Your task to perform on an android device: open a new tab in the chrome app Image 0: 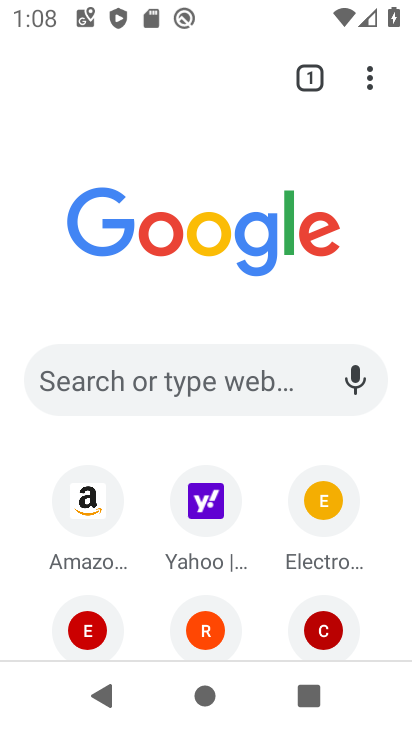
Step 0: drag from (377, 95) to (333, 149)
Your task to perform on an android device: open a new tab in the chrome app Image 1: 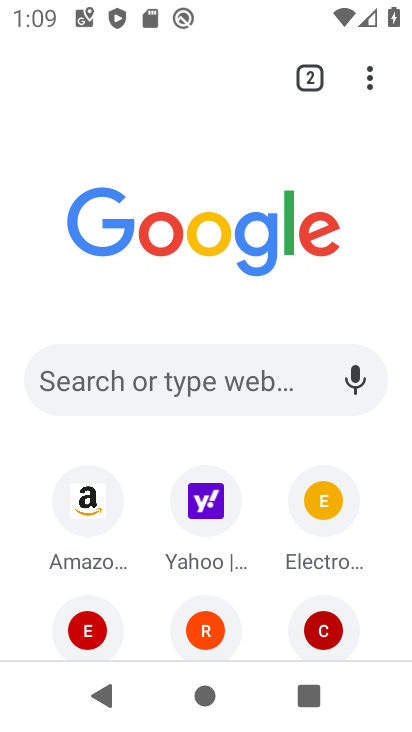
Step 1: task complete